Your task to perform on an android device: open wifi settings Image 0: 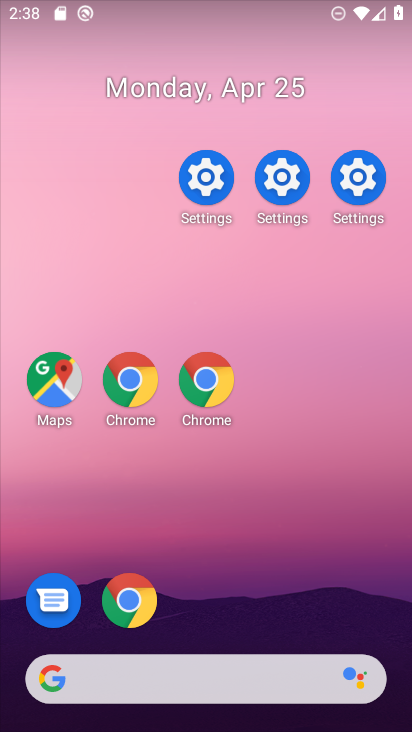
Step 0: drag from (244, 713) to (381, 358)
Your task to perform on an android device: open wifi settings Image 1: 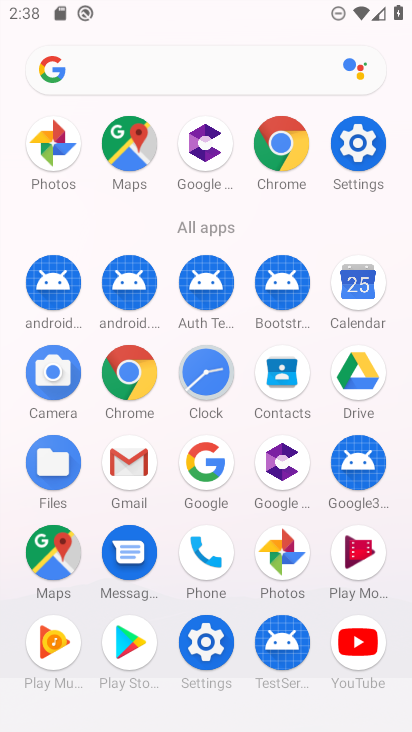
Step 1: click (356, 149)
Your task to perform on an android device: open wifi settings Image 2: 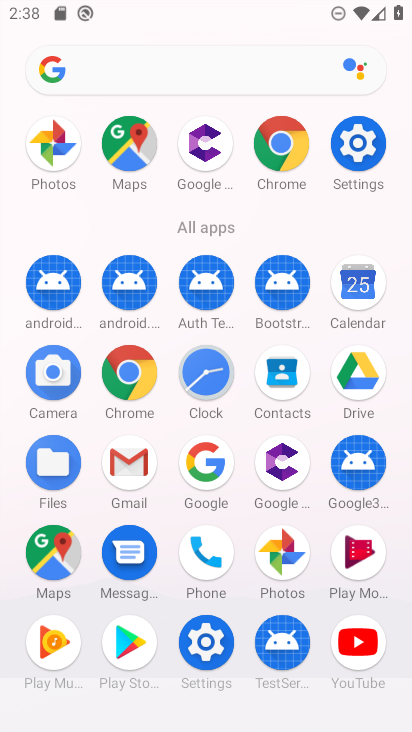
Step 2: click (356, 149)
Your task to perform on an android device: open wifi settings Image 3: 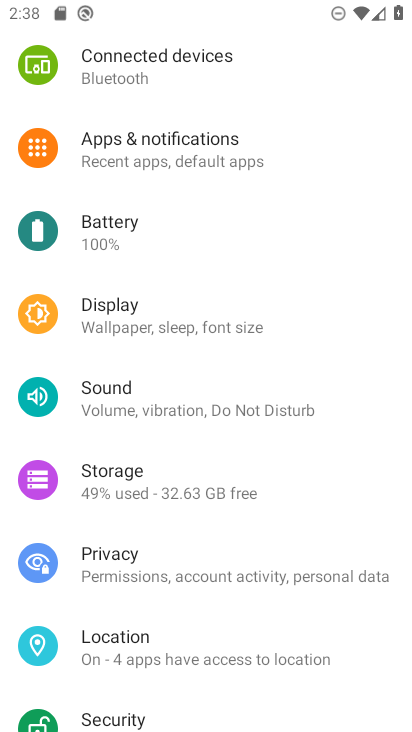
Step 3: drag from (160, 124) to (194, 721)
Your task to perform on an android device: open wifi settings Image 4: 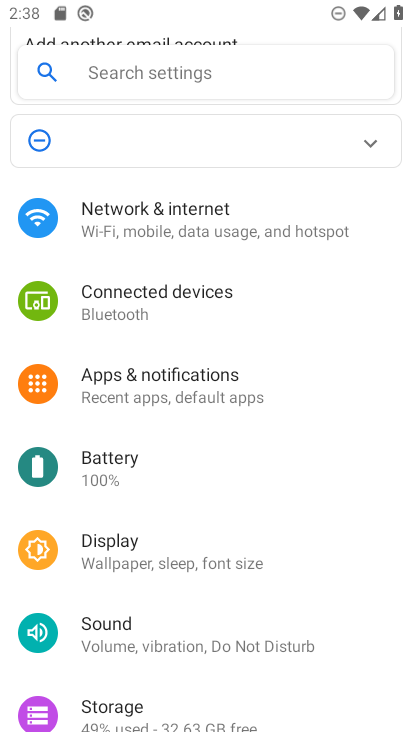
Step 4: drag from (161, 108) to (223, 499)
Your task to perform on an android device: open wifi settings Image 5: 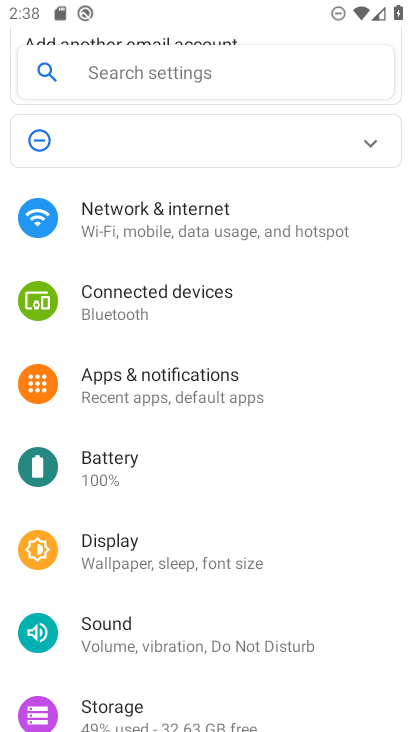
Step 5: drag from (132, 64) to (125, 662)
Your task to perform on an android device: open wifi settings Image 6: 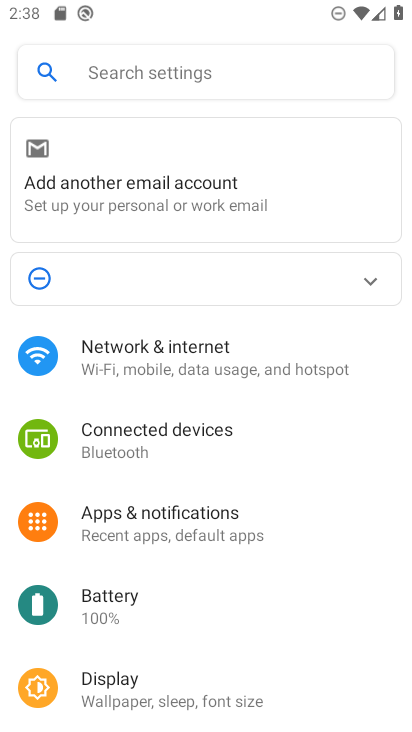
Step 6: drag from (193, 127) to (246, 495)
Your task to perform on an android device: open wifi settings Image 7: 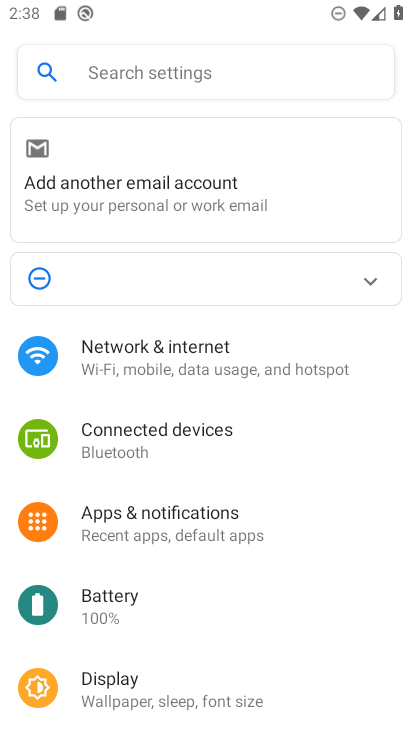
Step 7: drag from (156, 150) to (244, 296)
Your task to perform on an android device: open wifi settings Image 8: 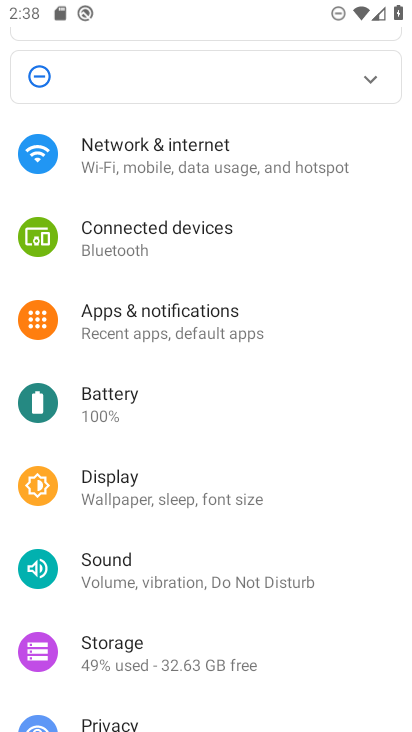
Step 8: drag from (231, 185) to (169, 429)
Your task to perform on an android device: open wifi settings Image 9: 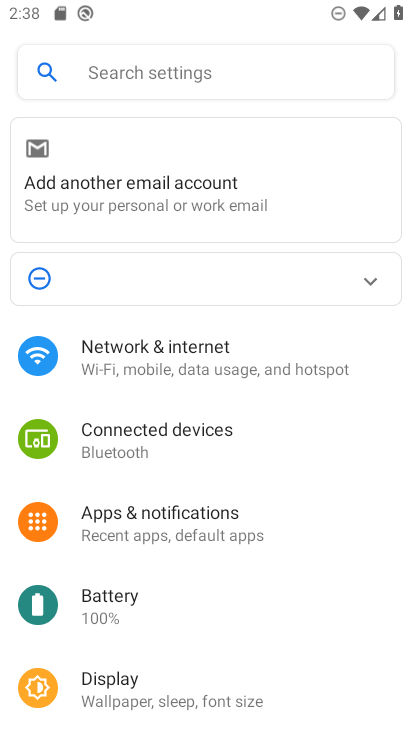
Step 9: click (191, 354)
Your task to perform on an android device: open wifi settings Image 10: 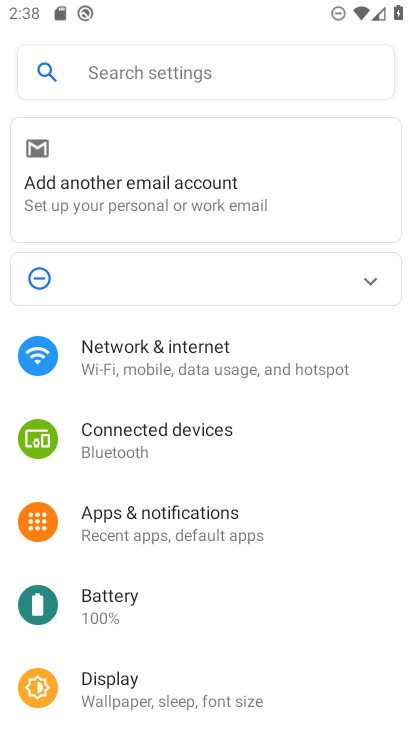
Step 10: click (167, 357)
Your task to perform on an android device: open wifi settings Image 11: 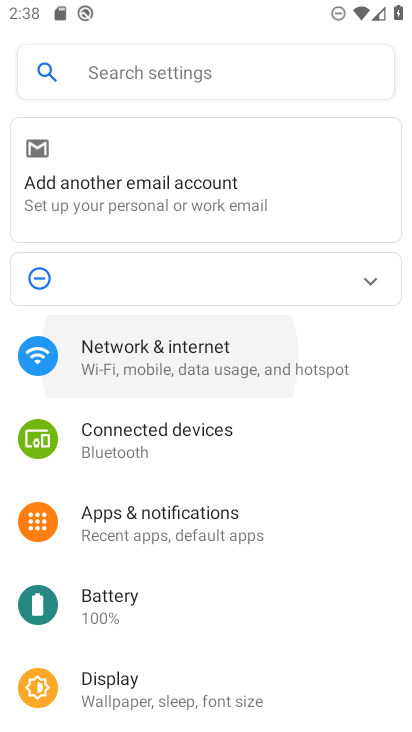
Step 11: task complete